Your task to perform on an android device: Go to Maps Image 0: 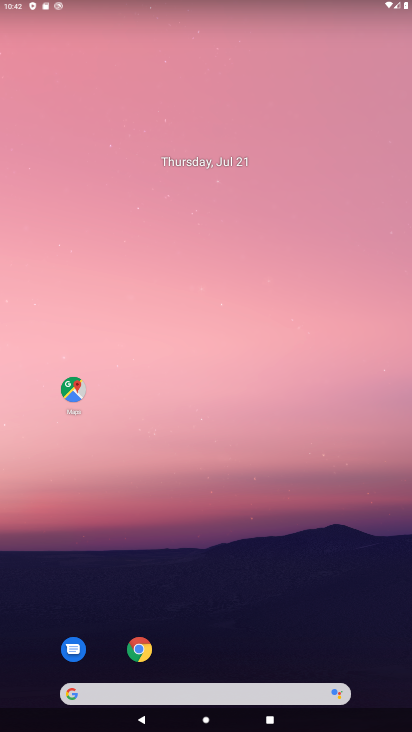
Step 0: click (77, 386)
Your task to perform on an android device: Go to Maps Image 1: 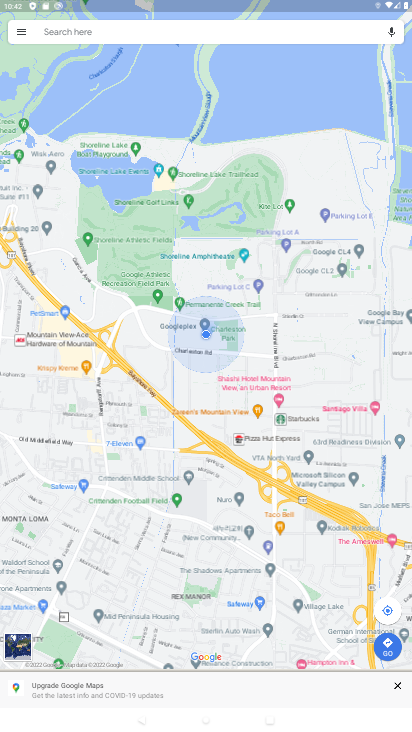
Step 1: task complete